Your task to perform on an android device: Go to location settings Image 0: 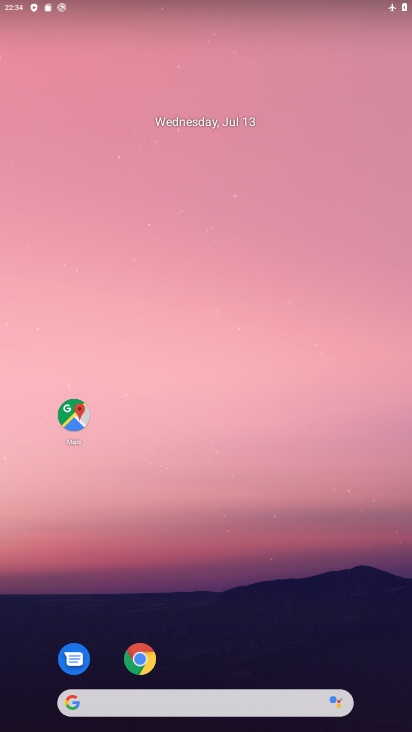
Step 0: drag from (356, 677) to (322, 15)
Your task to perform on an android device: Go to location settings Image 1: 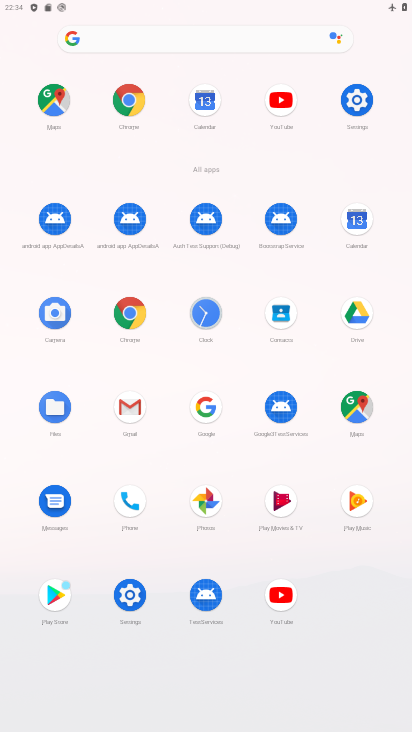
Step 1: click (127, 590)
Your task to perform on an android device: Go to location settings Image 2: 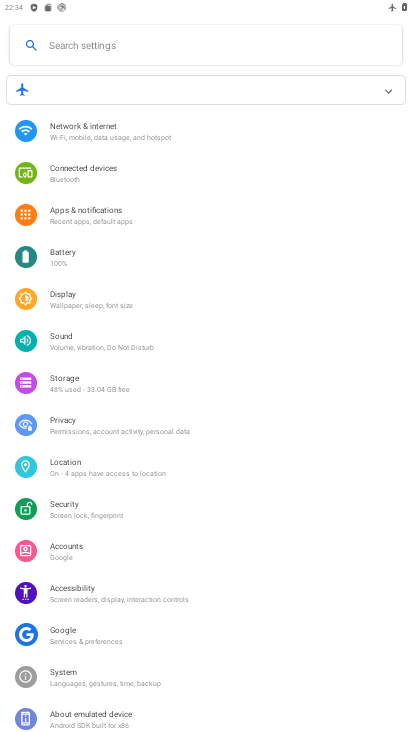
Step 2: click (74, 472)
Your task to perform on an android device: Go to location settings Image 3: 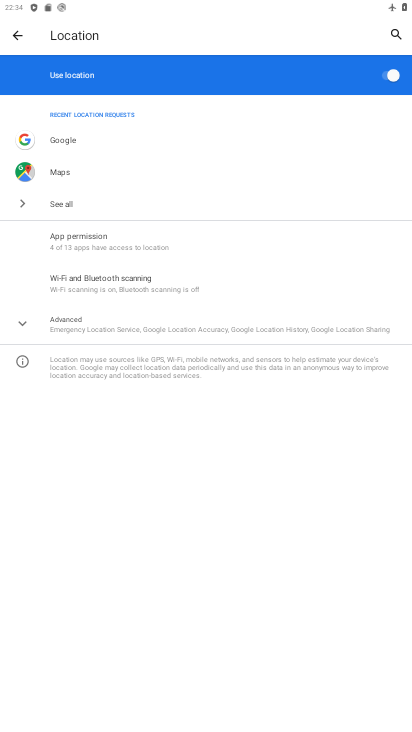
Step 3: task complete